Your task to perform on an android device: empty trash in google photos Image 0: 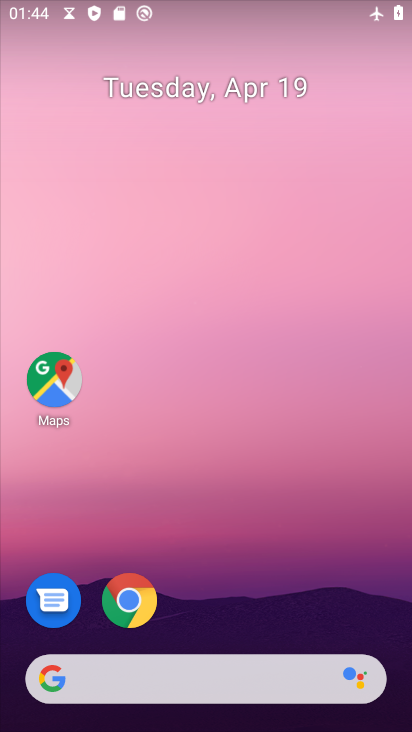
Step 0: drag from (229, 651) to (164, 27)
Your task to perform on an android device: empty trash in google photos Image 1: 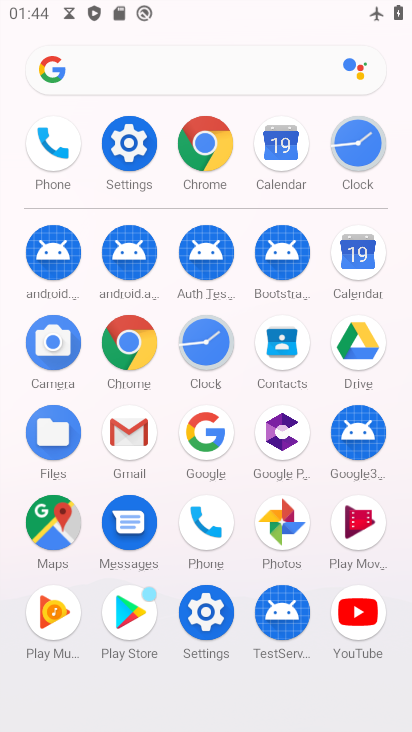
Step 1: click (277, 513)
Your task to perform on an android device: empty trash in google photos Image 2: 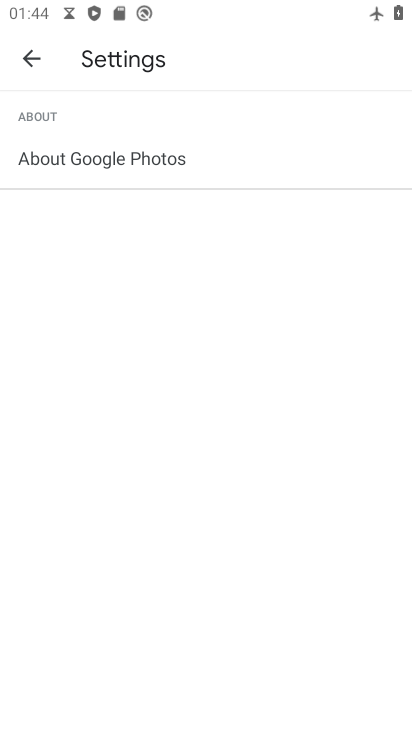
Step 2: click (37, 61)
Your task to perform on an android device: empty trash in google photos Image 3: 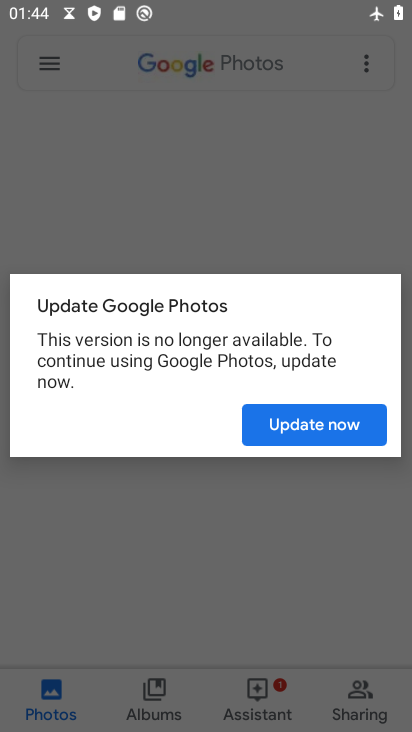
Step 3: click (282, 426)
Your task to perform on an android device: empty trash in google photos Image 4: 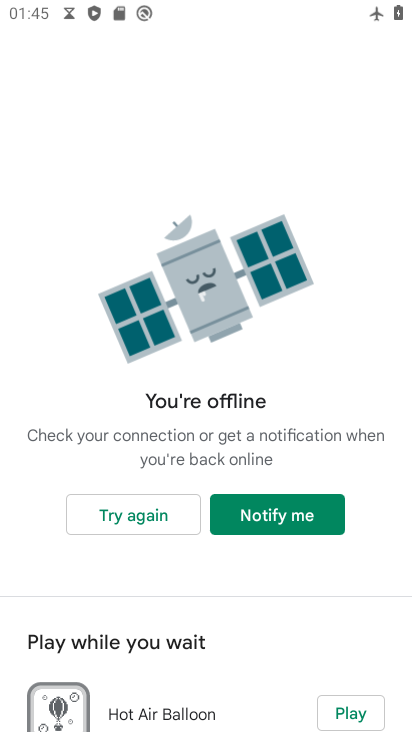
Step 4: click (145, 504)
Your task to perform on an android device: empty trash in google photos Image 5: 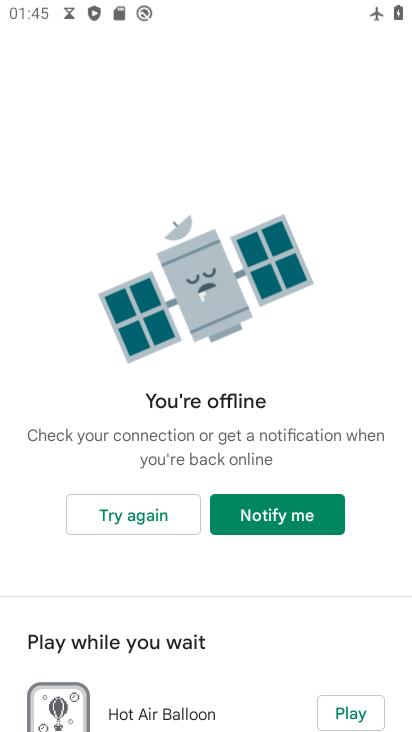
Step 5: press home button
Your task to perform on an android device: empty trash in google photos Image 6: 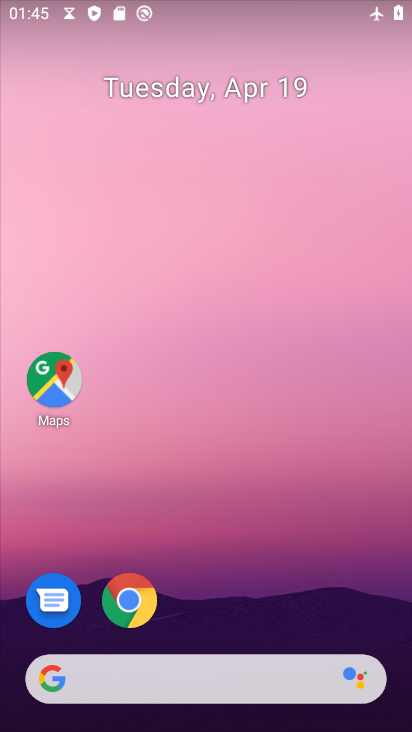
Step 6: drag from (247, 627) to (280, 52)
Your task to perform on an android device: empty trash in google photos Image 7: 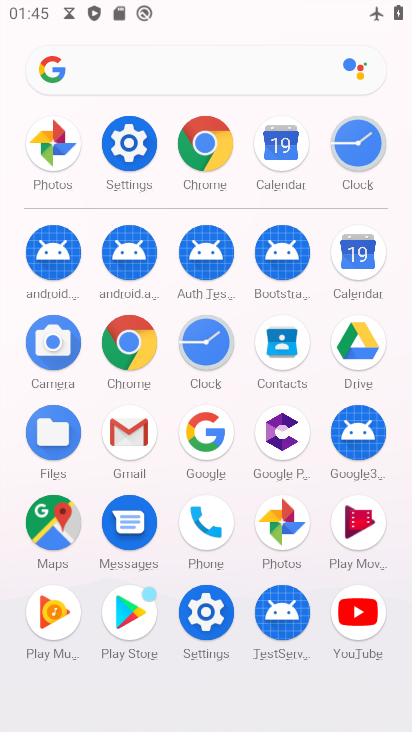
Step 7: click (268, 517)
Your task to perform on an android device: empty trash in google photos Image 8: 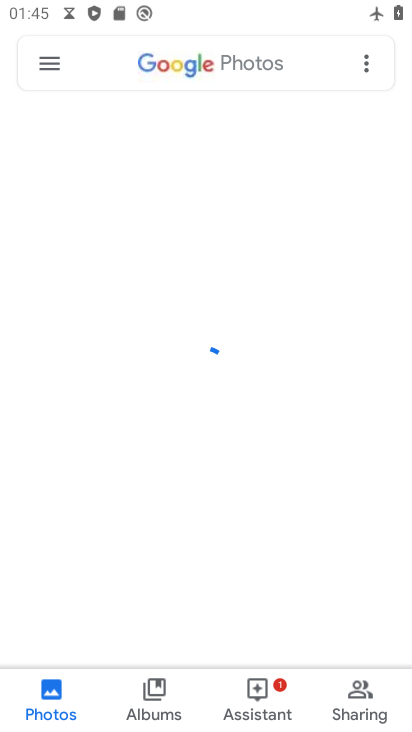
Step 8: click (50, 64)
Your task to perform on an android device: empty trash in google photos Image 9: 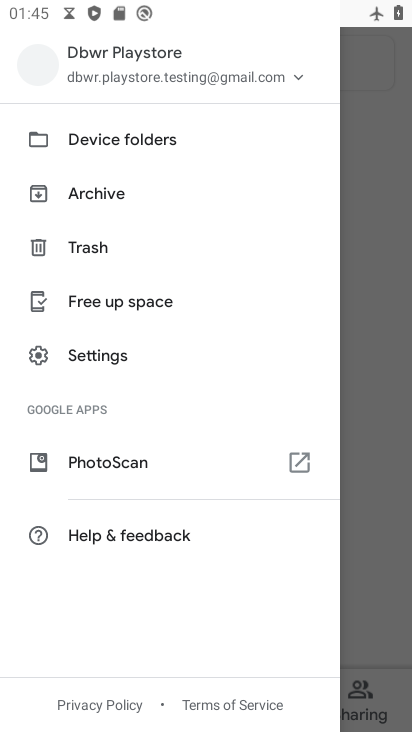
Step 9: click (71, 238)
Your task to perform on an android device: empty trash in google photos Image 10: 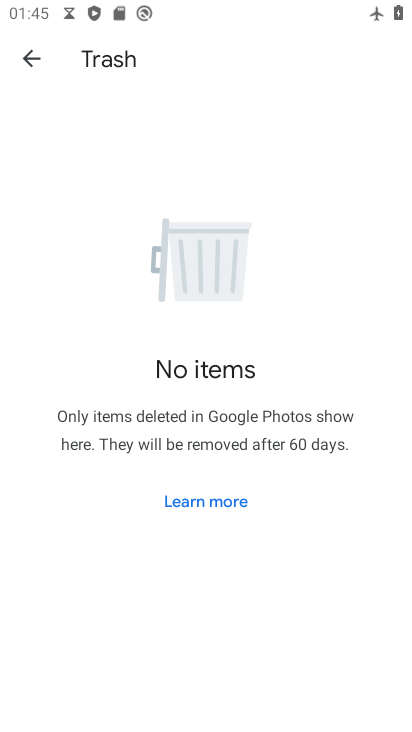
Step 10: task complete